Your task to perform on an android device: Go to accessibility settings Image 0: 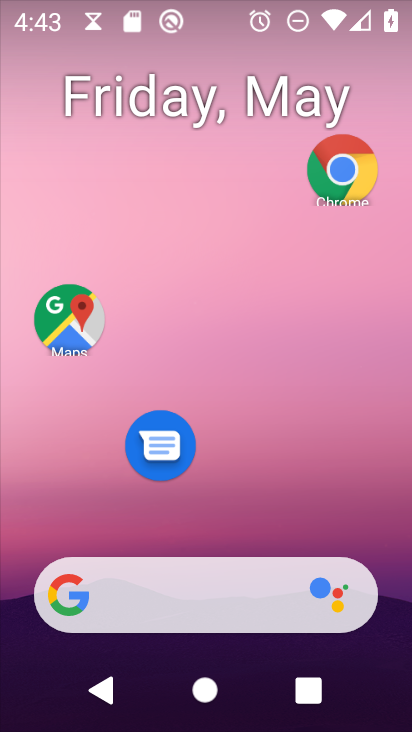
Step 0: drag from (225, 540) to (260, 34)
Your task to perform on an android device: Go to accessibility settings Image 1: 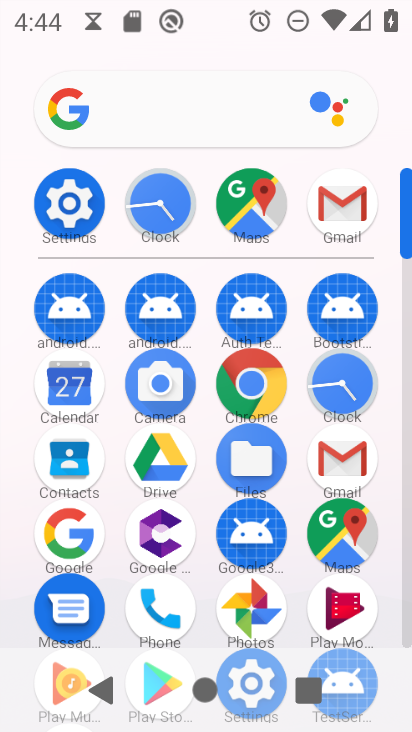
Step 1: click (90, 204)
Your task to perform on an android device: Go to accessibility settings Image 2: 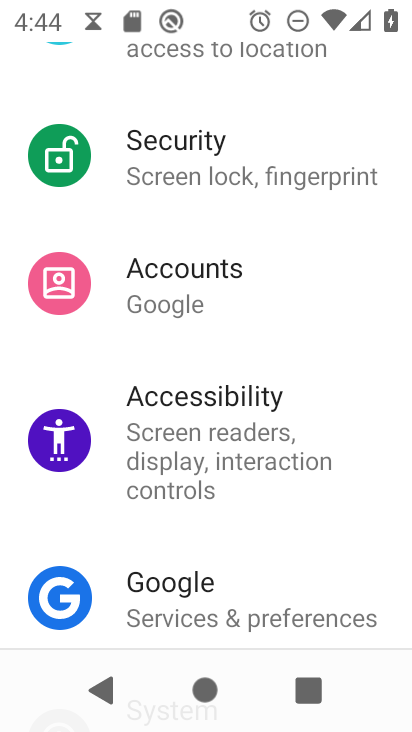
Step 2: click (194, 433)
Your task to perform on an android device: Go to accessibility settings Image 3: 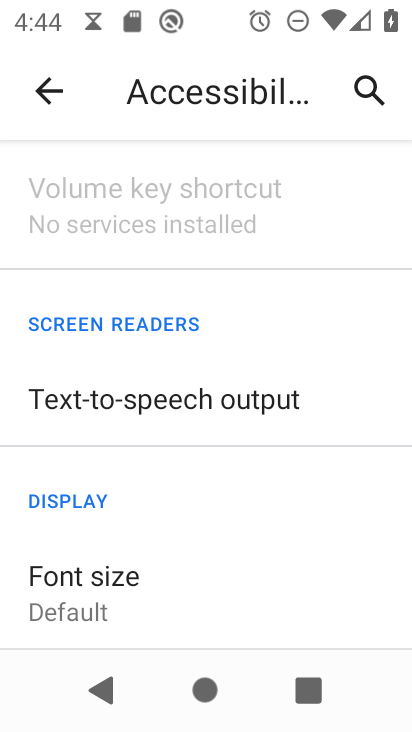
Step 3: task complete